Your task to perform on an android device: check out phone information Image 0: 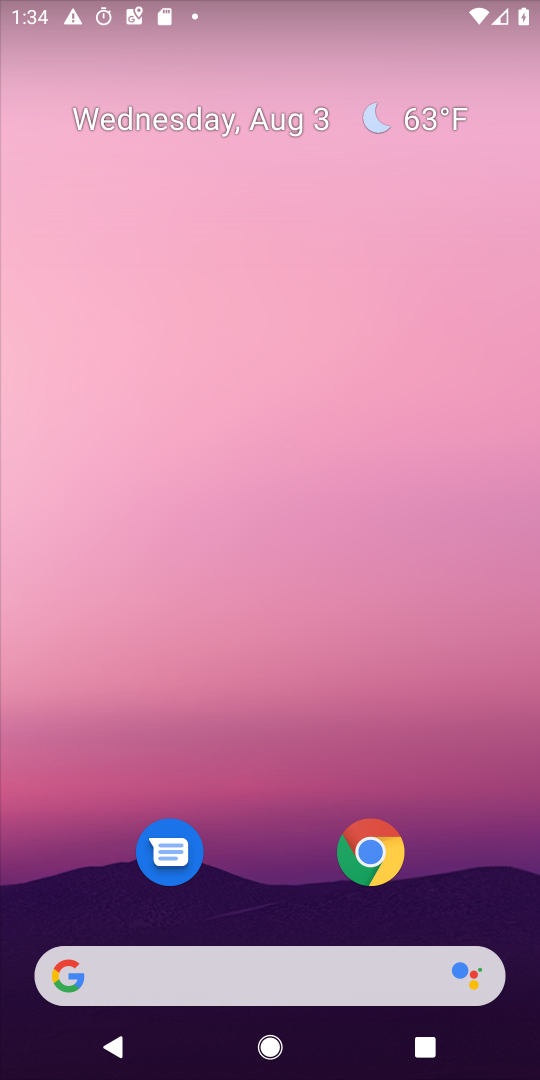
Step 0: click (177, 8)
Your task to perform on an android device: check out phone information Image 1: 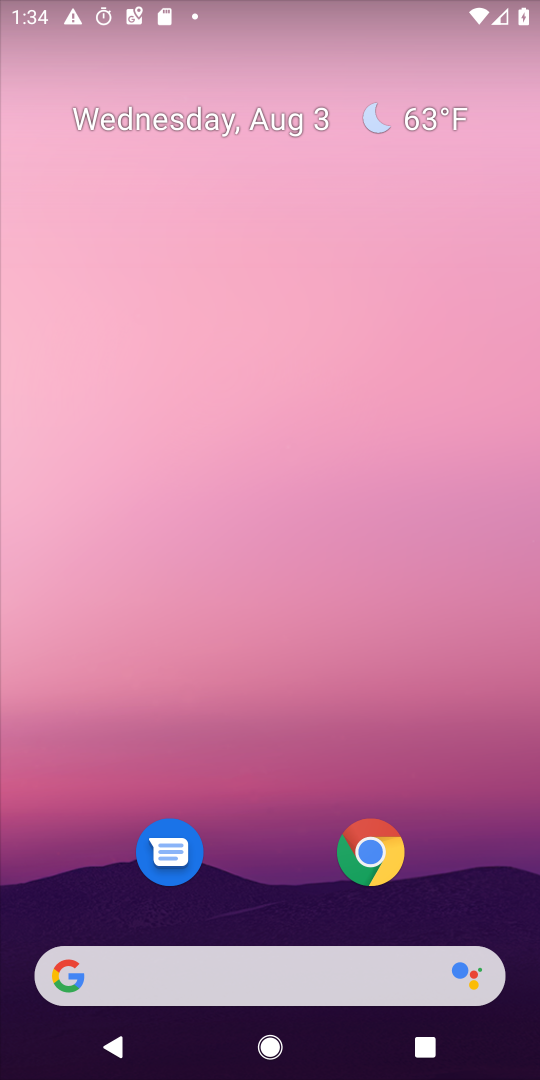
Step 1: drag from (498, 819) to (163, 67)
Your task to perform on an android device: check out phone information Image 2: 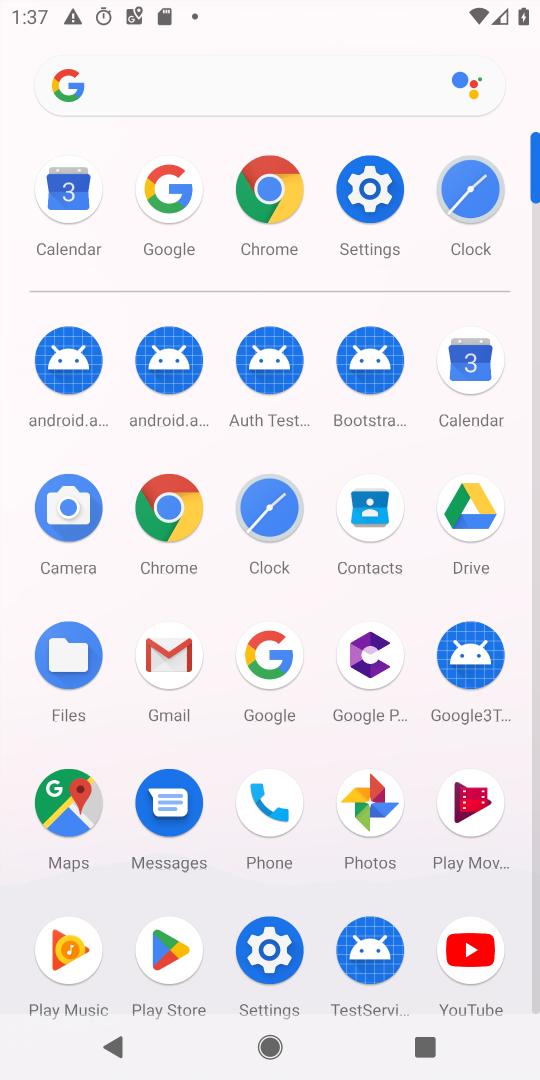
Step 2: click (266, 956)
Your task to perform on an android device: check out phone information Image 3: 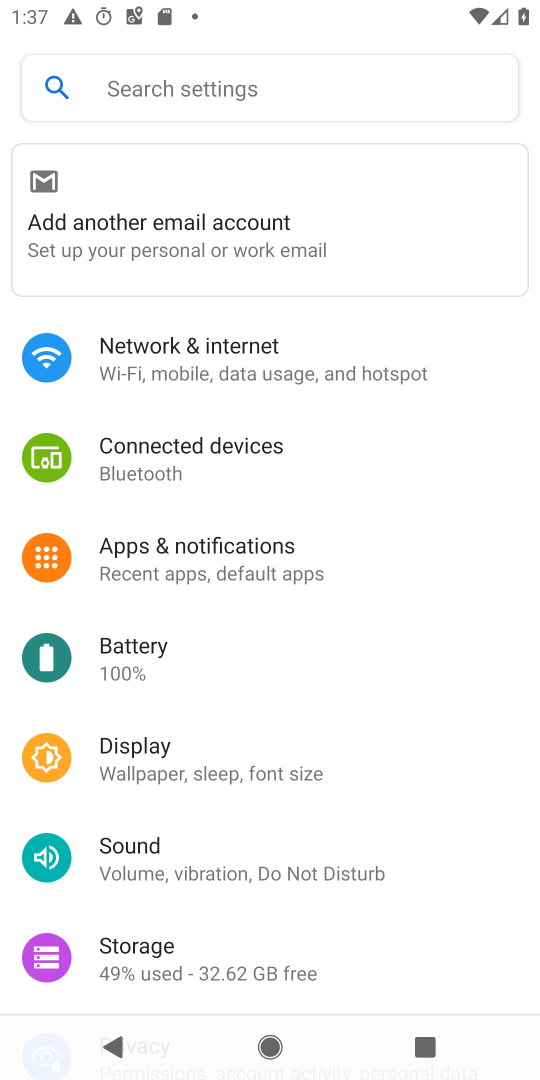
Step 3: task complete